Your task to perform on an android device: open app "ColorNote Notepad Notes" (install if not already installed) and enter user name: "unbridled@gmail.com" and password: "regularly" Image 0: 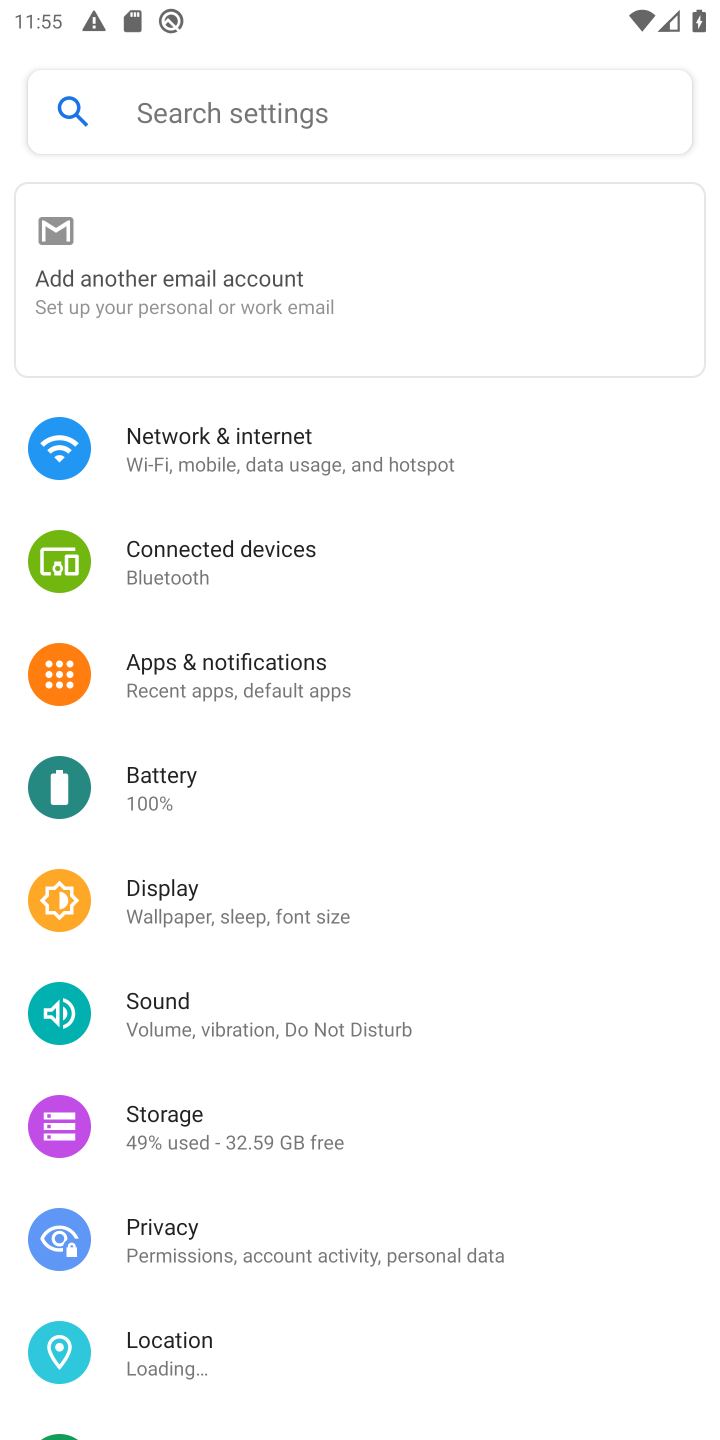
Step 0: press back button
Your task to perform on an android device: open app "ColorNote Notepad Notes" (install if not already installed) and enter user name: "unbridled@gmail.com" and password: "regularly" Image 1: 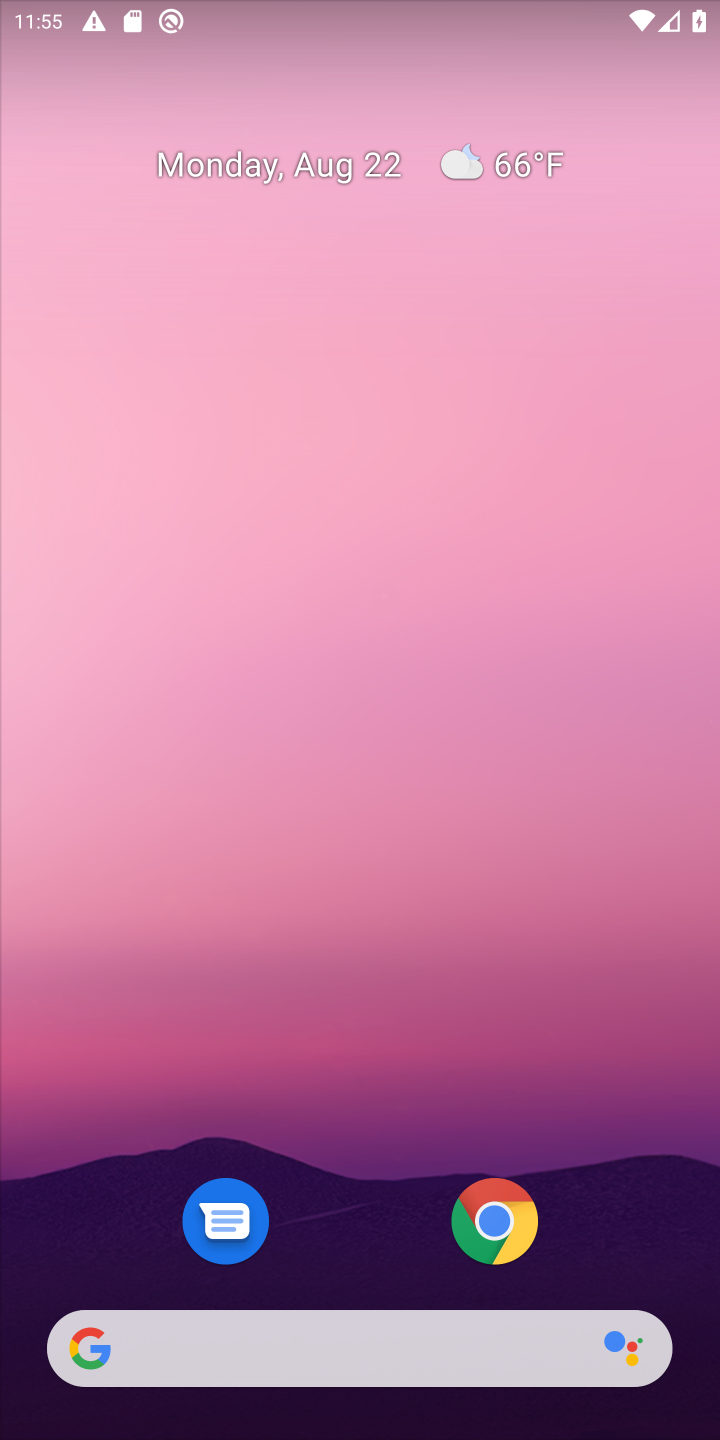
Step 1: drag from (346, 1175) to (400, 61)
Your task to perform on an android device: open app "ColorNote Notepad Notes" (install if not already installed) and enter user name: "unbridled@gmail.com" and password: "regularly" Image 2: 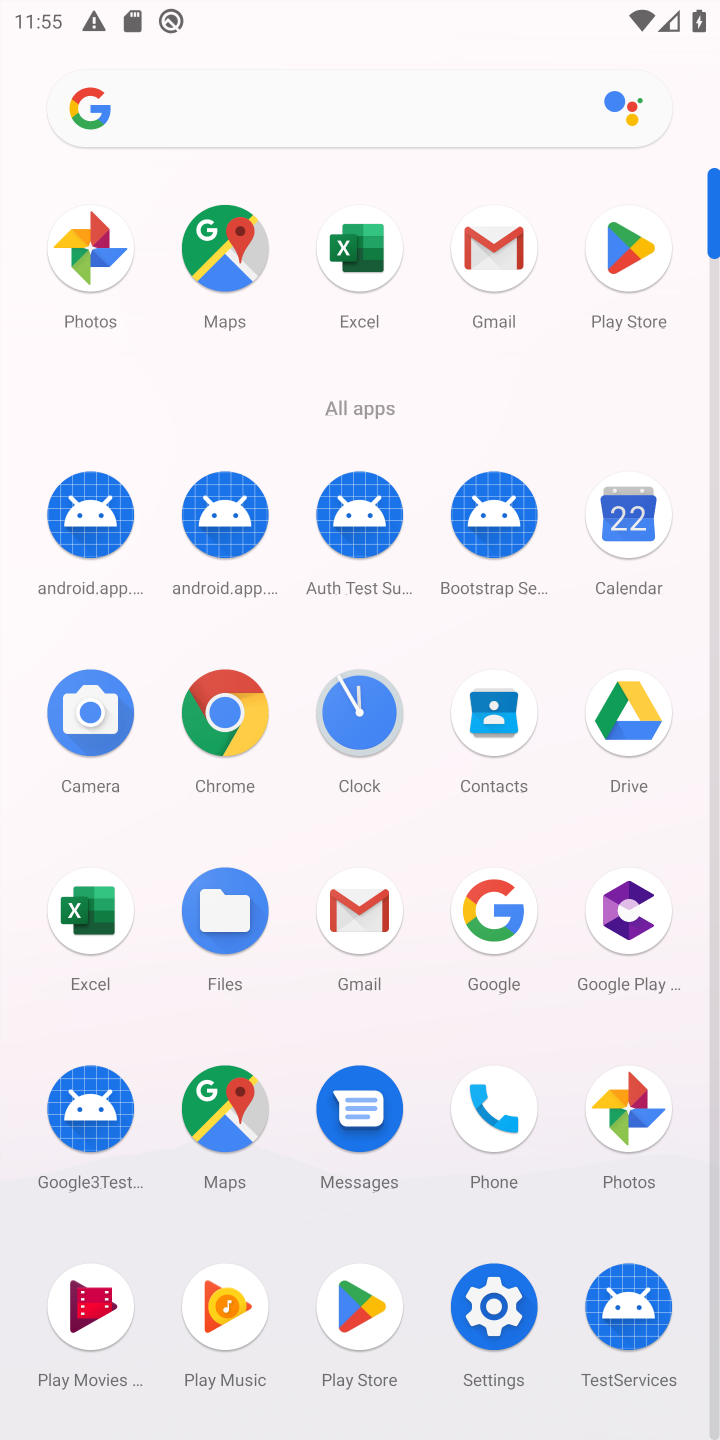
Step 2: click (628, 234)
Your task to perform on an android device: open app "ColorNote Notepad Notes" (install if not already installed) and enter user name: "unbridled@gmail.com" and password: "regularly" Image 3: 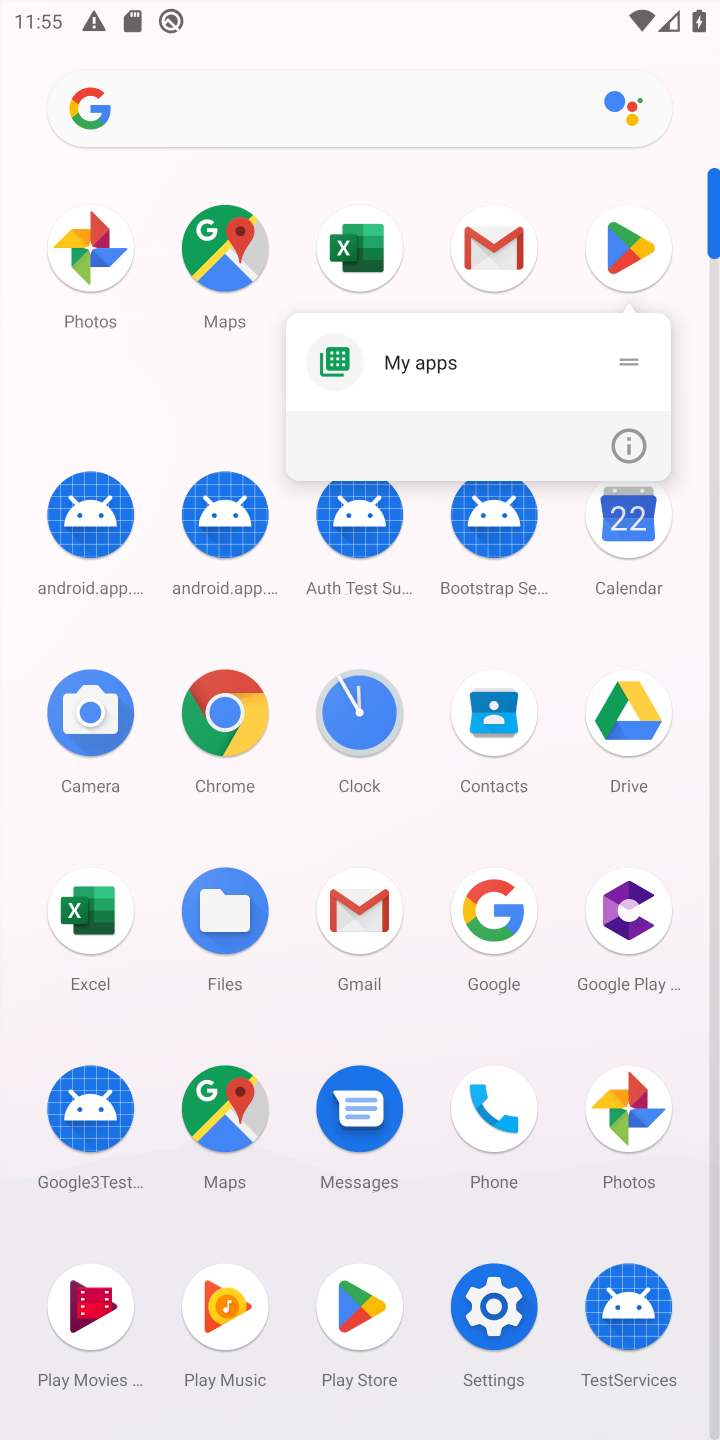
Step 3: click (633, 243)
Your task to perform on an android device: open app "ColorNote Notepad Notes" (install if not already installed) and enter user name: "unbridled@gmail.com" and password: "regularly" Image 4: 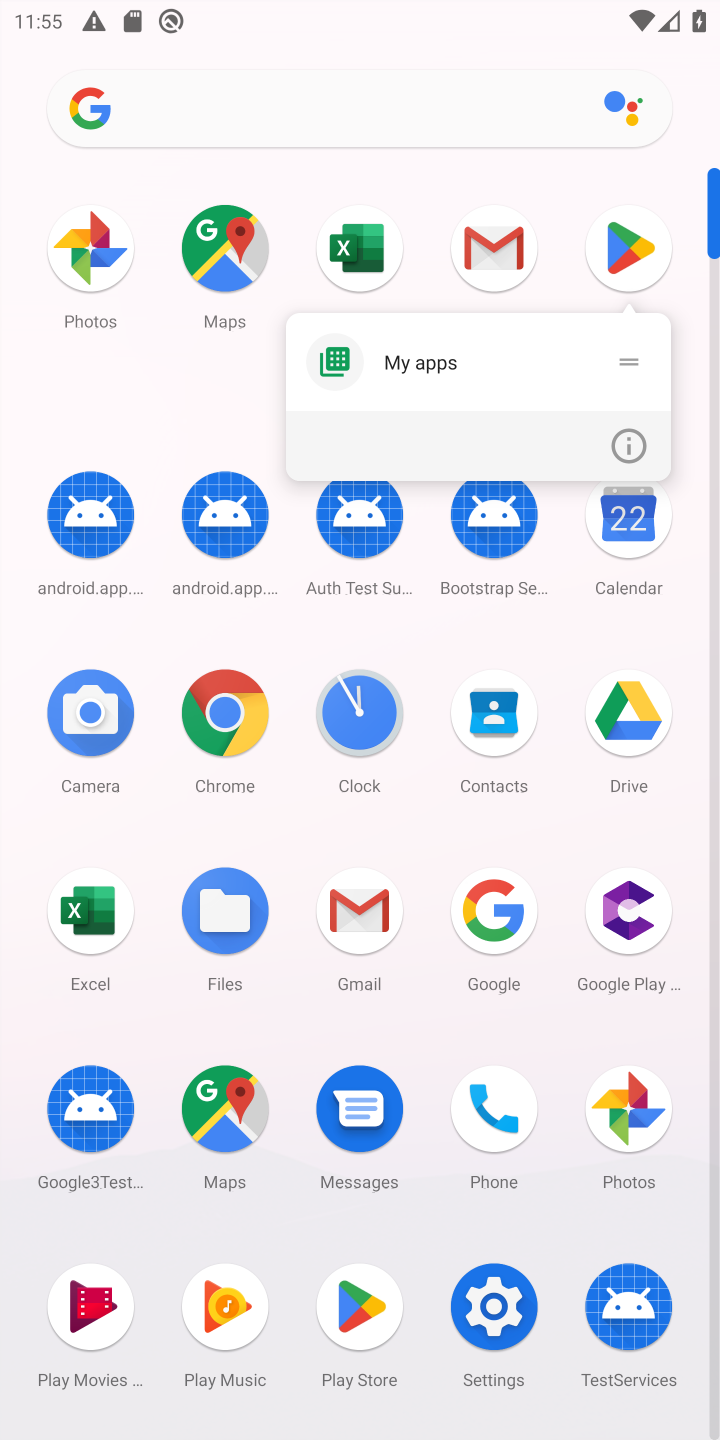
Step 4: click (633, 261)
Your task to perform on an android device: open app "ColorNote Notepad Notes" (install if not already installed) and enter user name: "unbridled@gmail.com" and password: "regularly" Image 5: 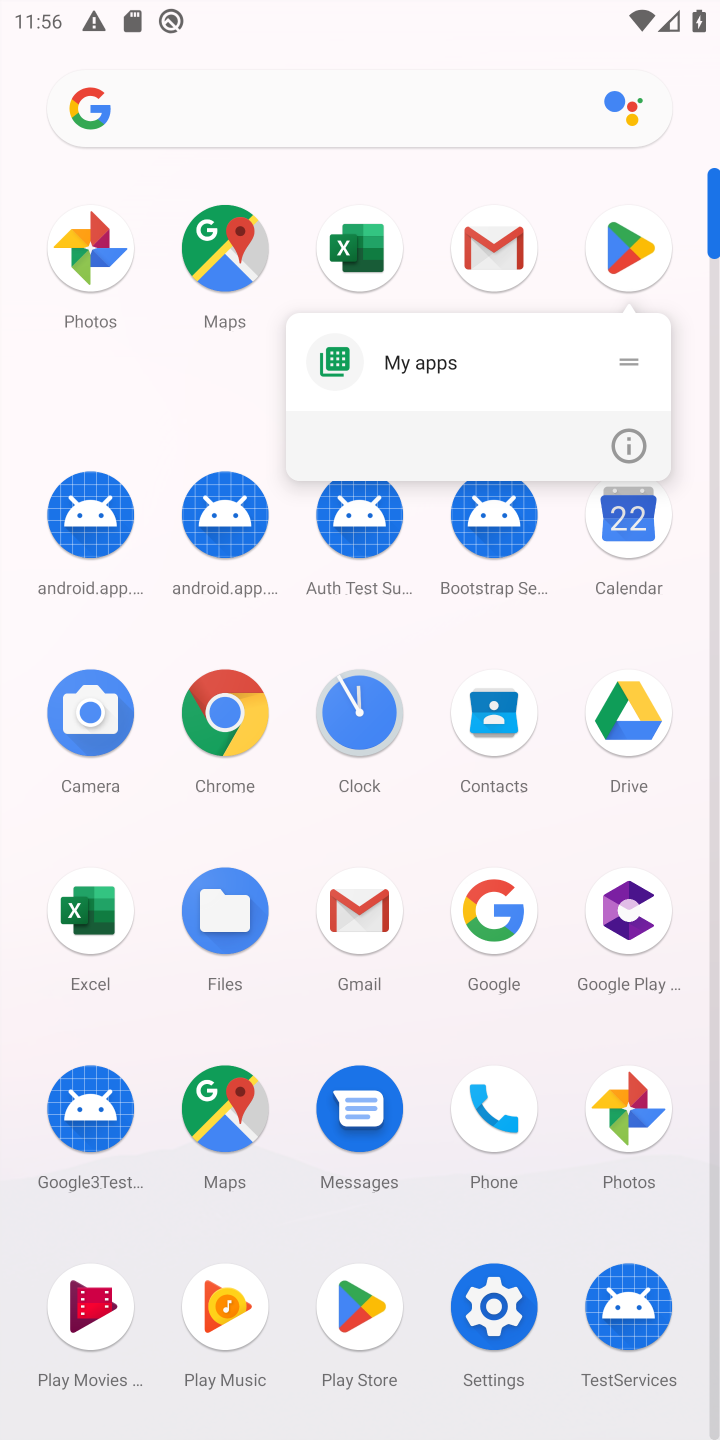
Step 5: click (631, 259)
Your task to perform on an android device: open app "ColorNote Notepad Notes" (install if not already installed) and enter user name: "unbridled@gmail.com" and password: "regularly" Image 6: 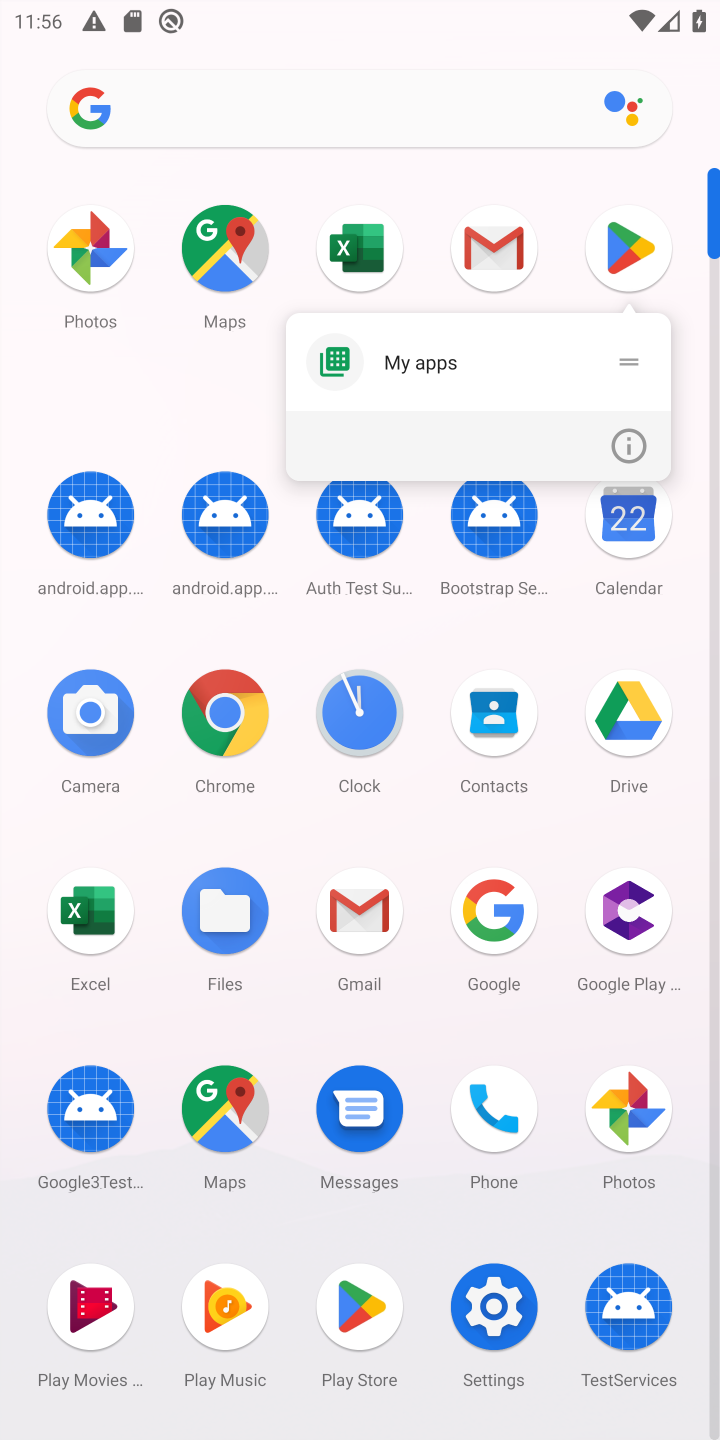
Step 6: click (633, 250)
Your task to perform on an android device: open app "ColorNote Notepad Notes" (install if not already installed) and enter user name: "unbridled@gmail.com" and password: "regularly" Image 7: 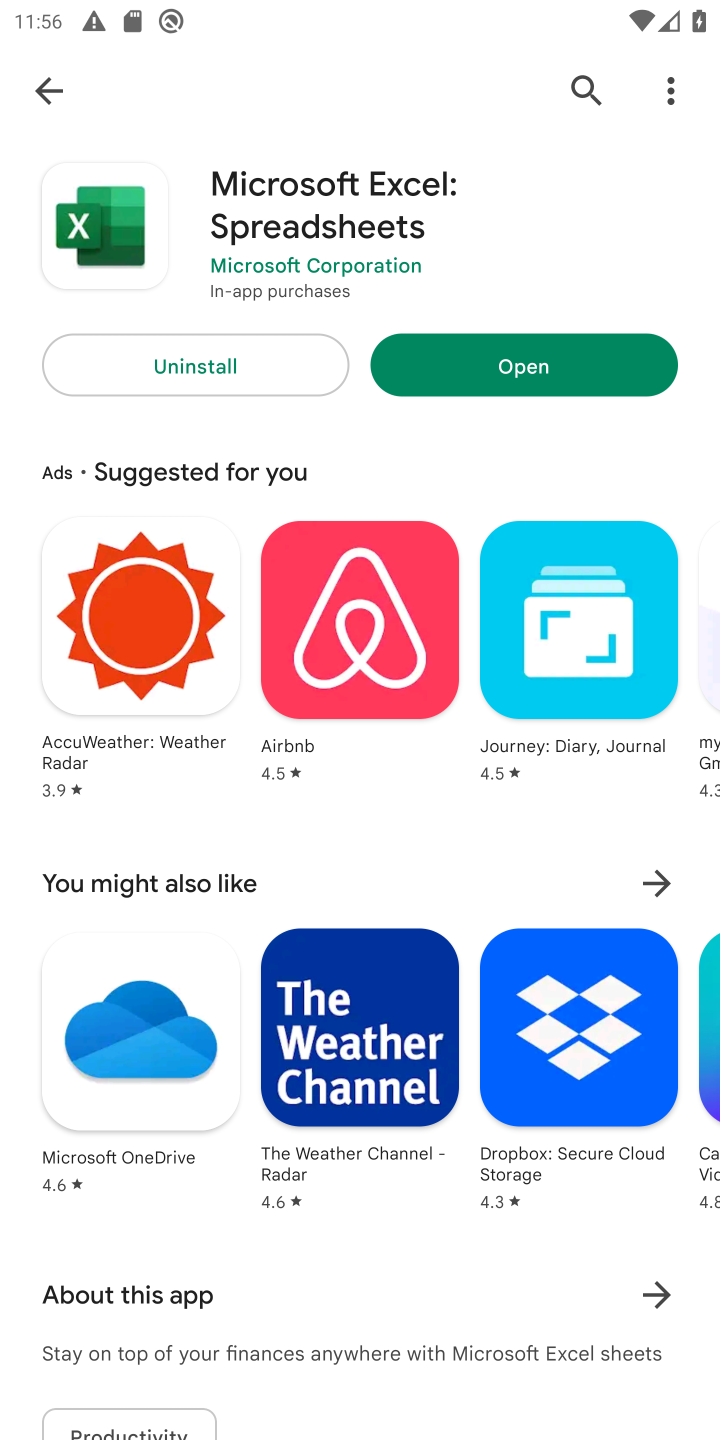
Step 7: click (585, 91)
Your task to perform on an android device: open app "ColorNote Notepad Notes" (install if not already installed) and enter user name: "unbridled@gmail.com" and password: "regularly" Image 8: 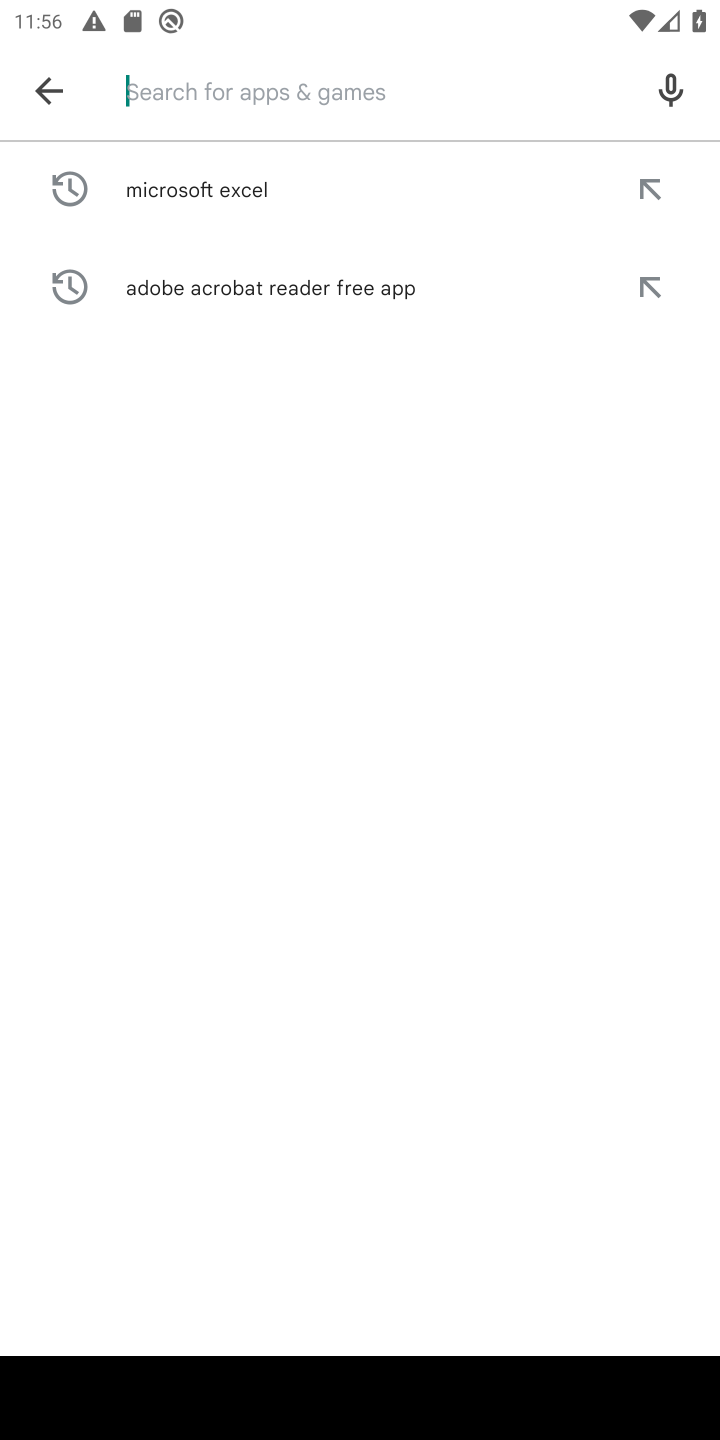
Step 8: click (211, 103)
Your task to perform on an android device: open app "ColorNote Notepad Notes" (install if not already installed) and enter user name: "unbridled@gmail.com" and password: "regularly" Image 9: 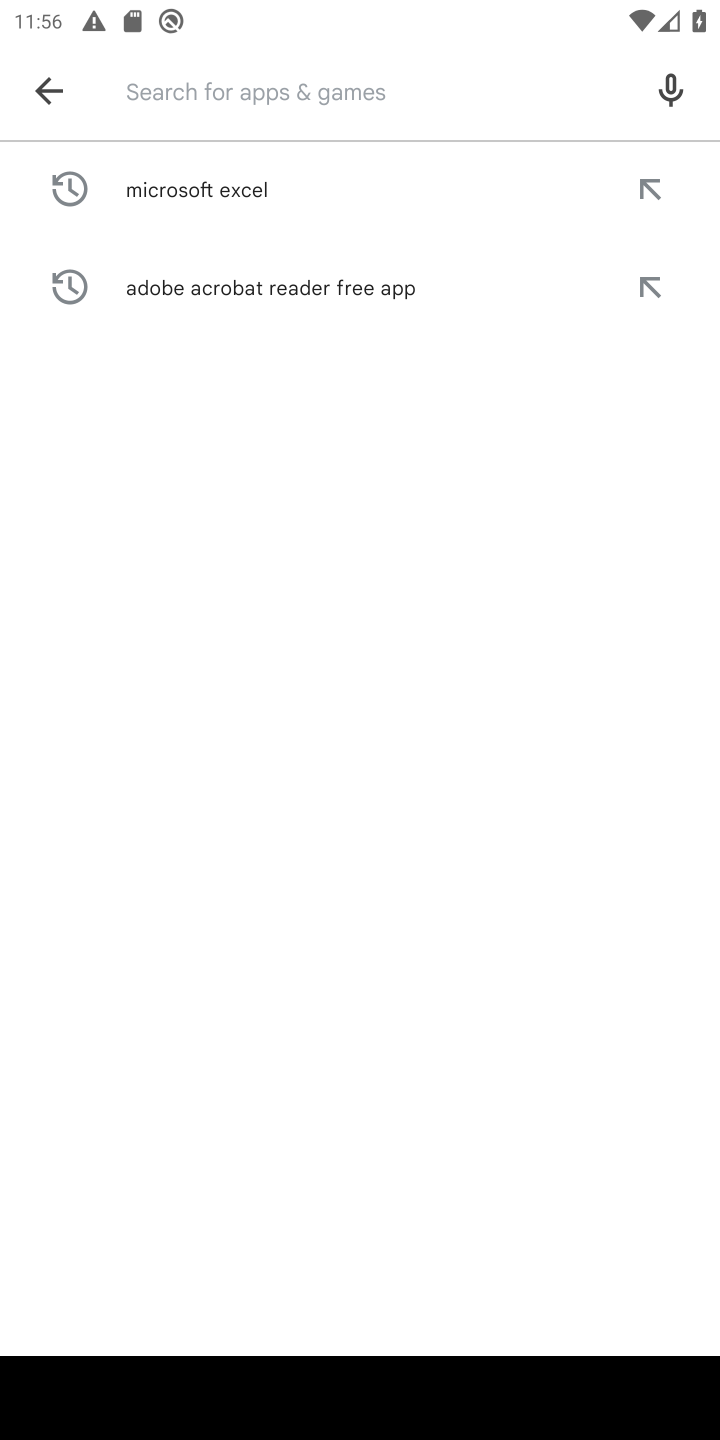
Step 9: type "ColorNote Notepad Notes"
Your task to perform on an android device: open app "ColorNote Notepad Notes" (install if not already installed) and enter user name: "unbridled@gmail.com" and password: "regularly" Image 10: 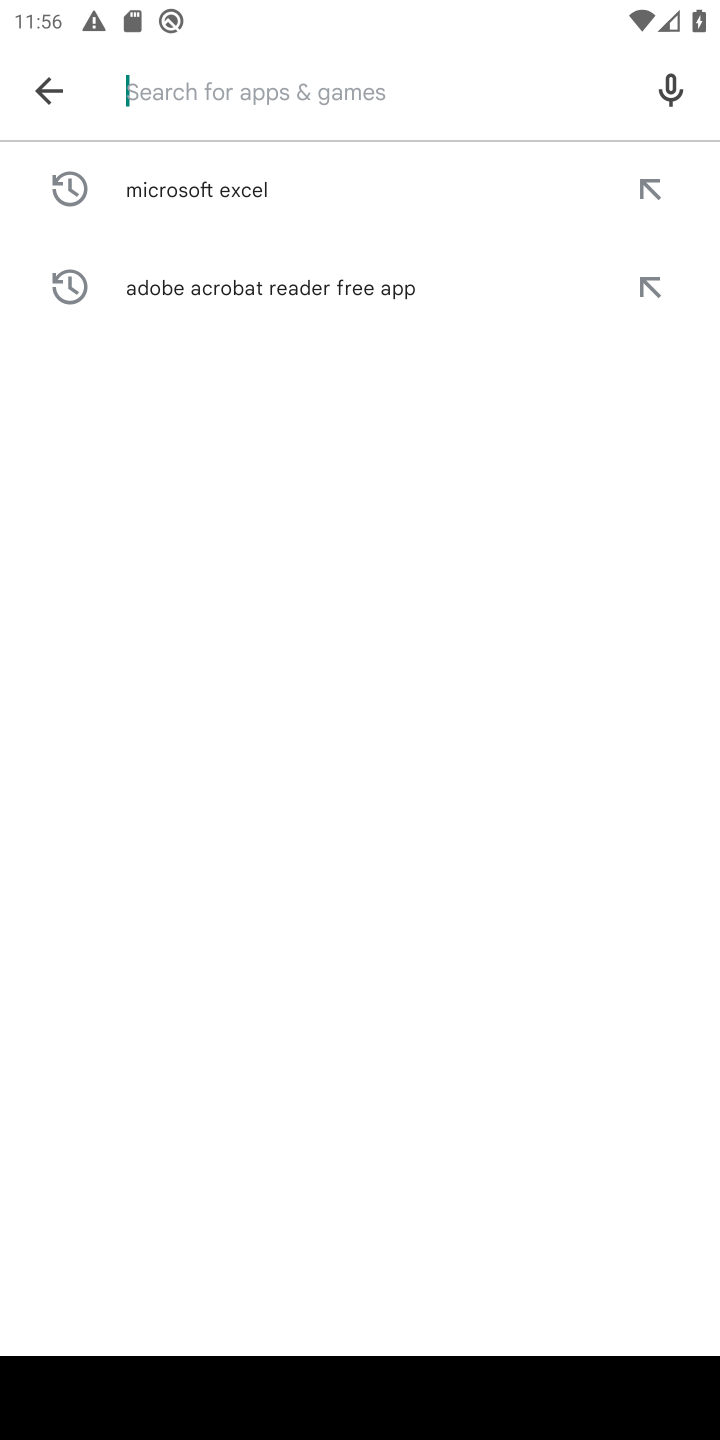
Step 10: click (517, 899)
Your task to perform on an android device: open app "ColorNote Notepad Notes" (install if not already installed) and enter user name: "unbridled@gmail.com" and password: "regularly" Image 11: 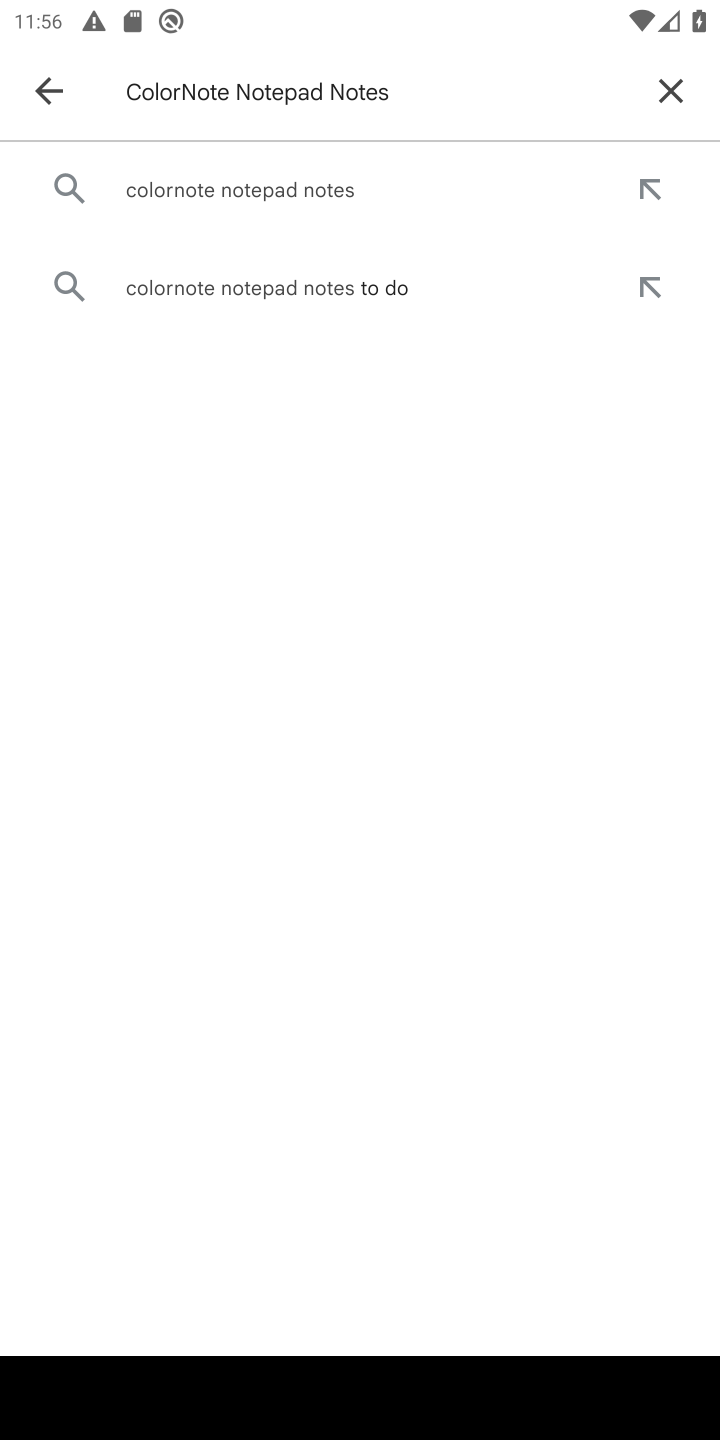
Step 11: click (367, 187)
Your task to perform on an android device: open app "ColorNote Notepad Notes" (install if not already installed) and enter user name: "unbridled@gmail.com" and password: "regularly" Image 12: 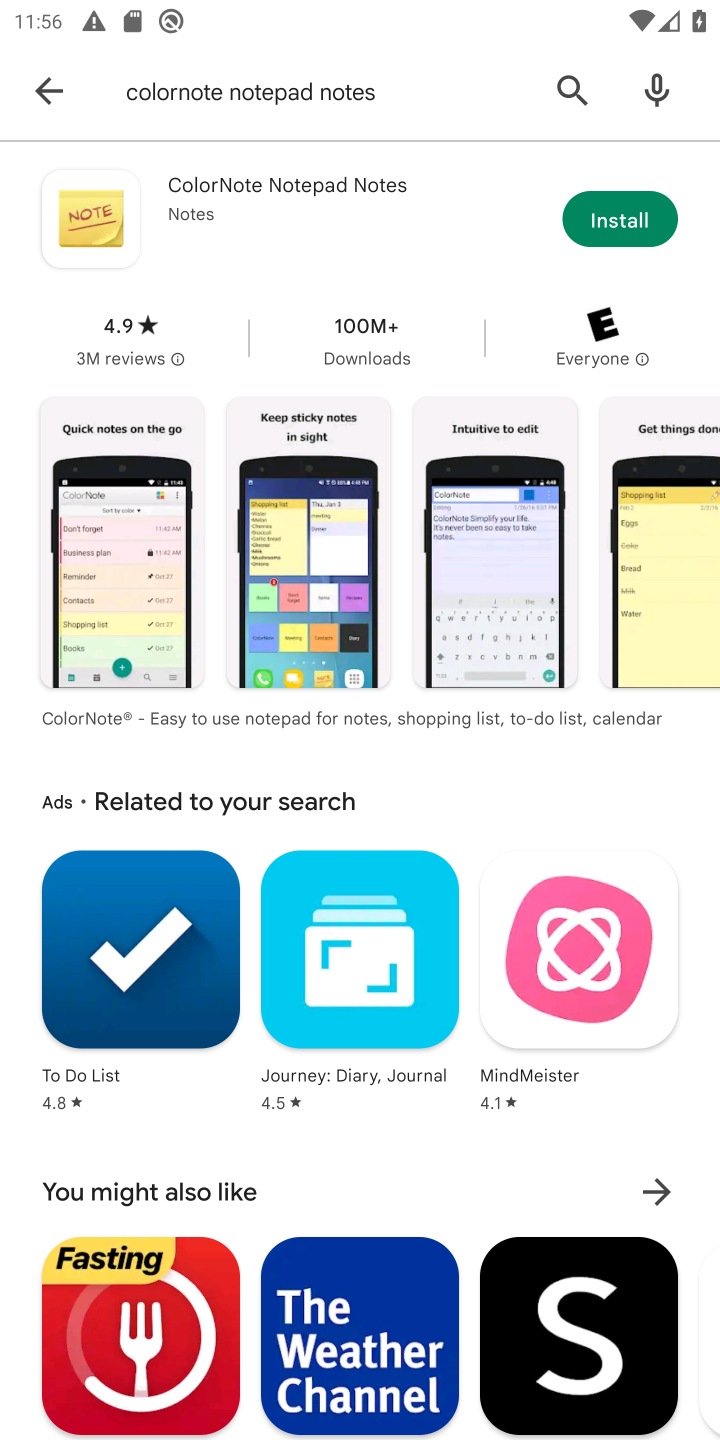
Step 12: click (616, 227)
Your task to perform on an android device: open app "ColorNote Notepad Notes" (install if not already installed) and enter user name: "unbridled@gmail.com" and password: "regularly" Image 13: 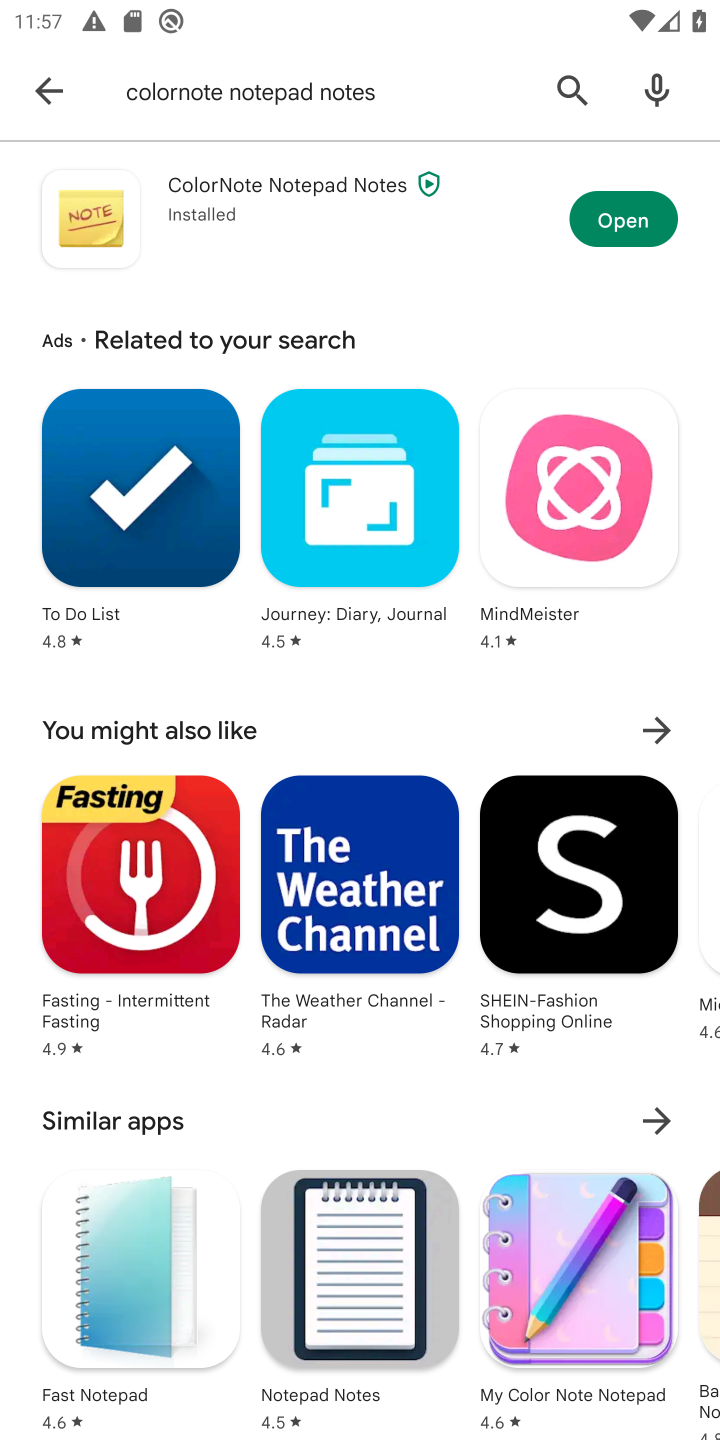
Step 13: click (630, 223)
Your task to perform on an android device: open app "ColorNote Notepad Notes" (install if not already installed) and enter user name: "unbridled@gmail.com" and password: "regularly" Image 14: 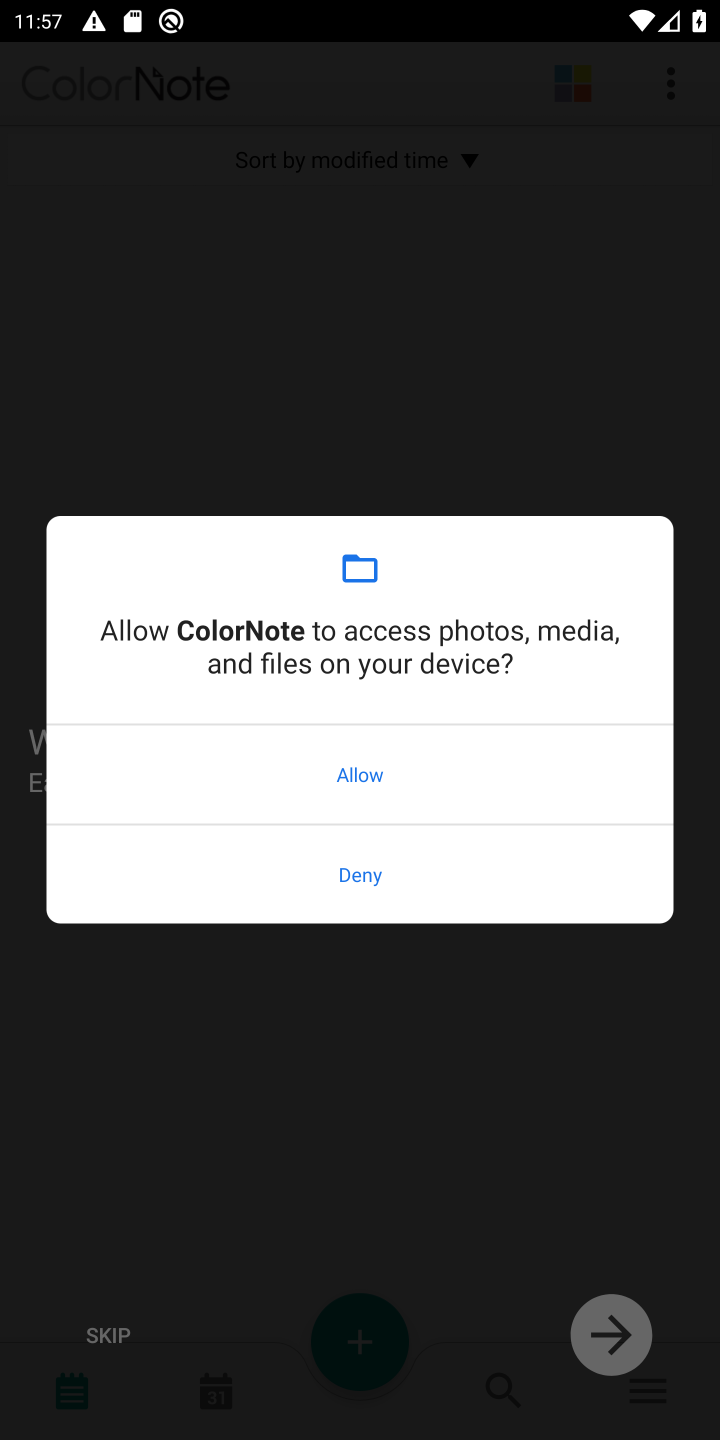
Step 14: click (462, 778)
Your task to perform on an android device: open app "ColorNote Notepad Notes" (install if not already installed) and enter user name: "unbridled@gmail.com" and password: "regularly" Image 15: 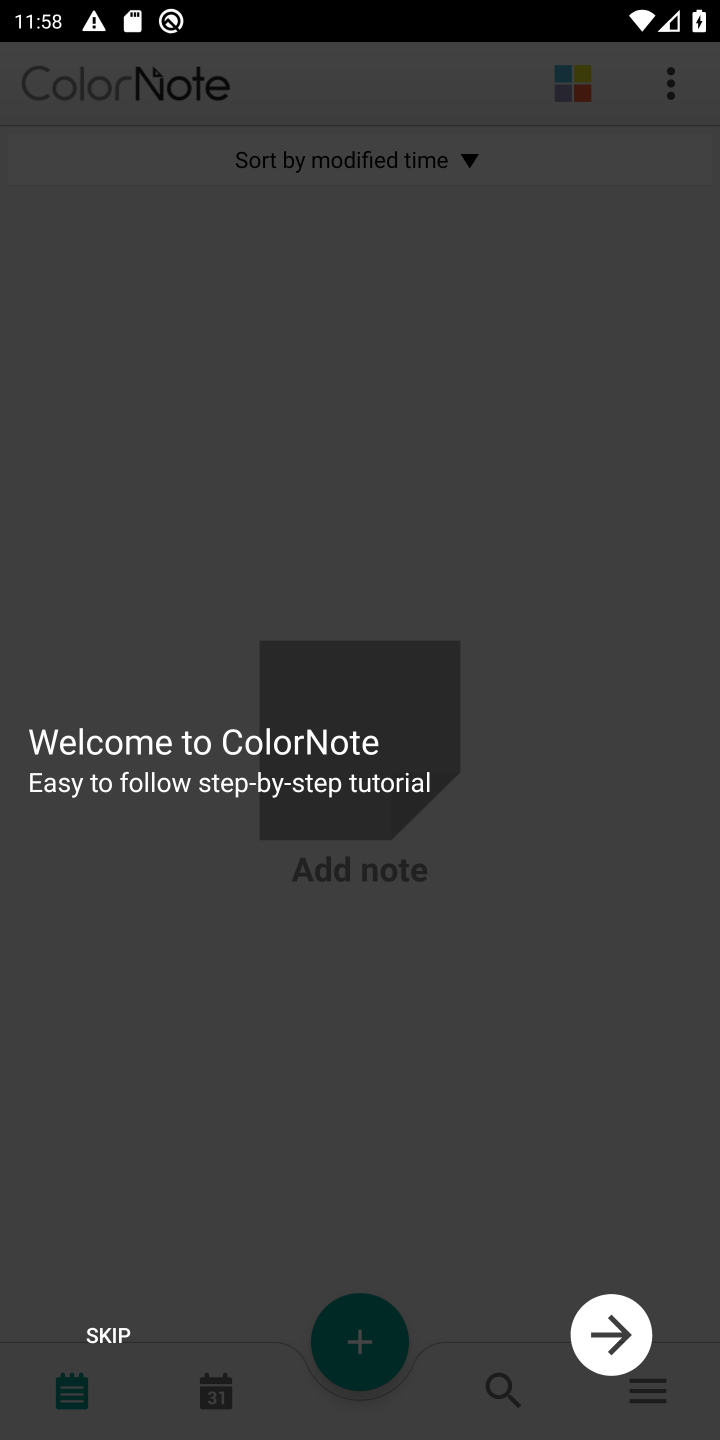
Step 15: press back button
Your task to perform on an android device: open app "ColorNote Notepad Notes" (install if not already installed) and enter user name: "unbridled@gmail.com" and password: "regularly" Image 16: 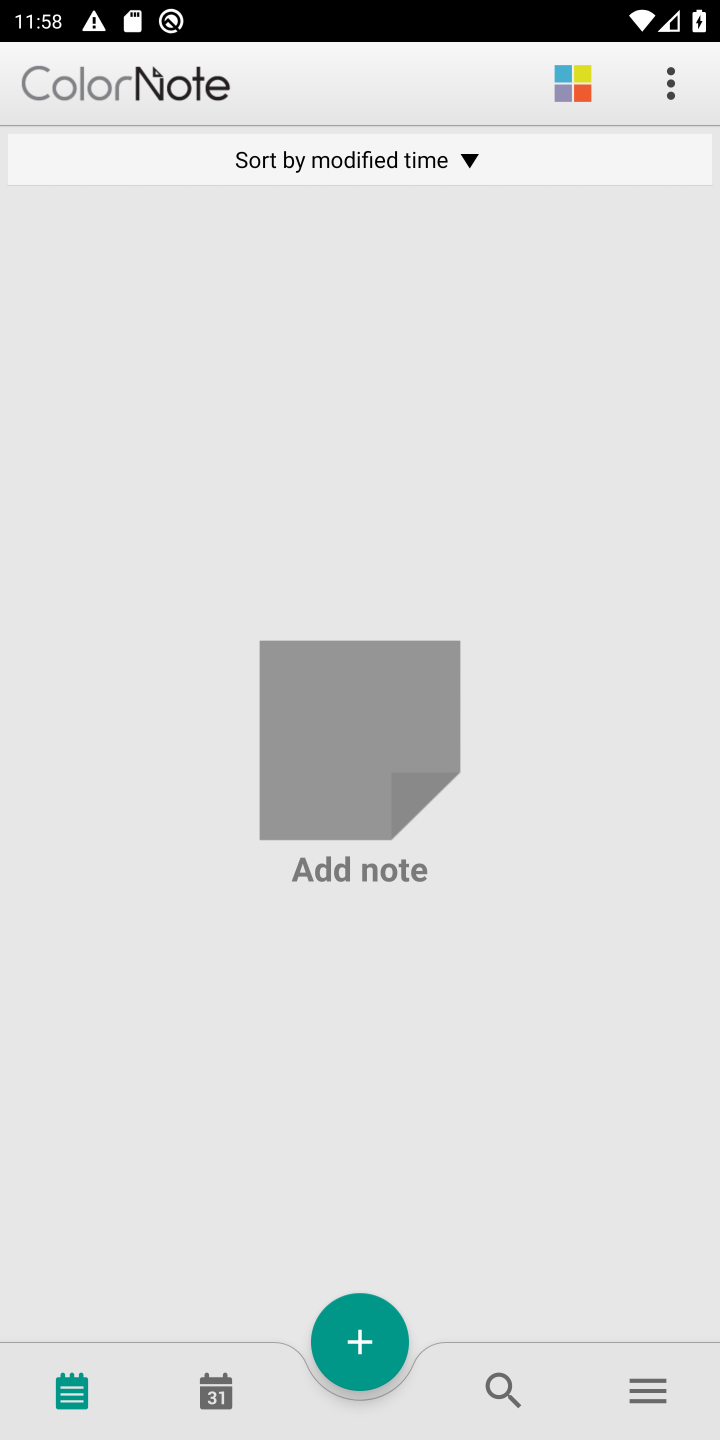
Step 16: click (565, 85)
Your task to perform on an android device: open app "ColorNote Notepad Notes" (install if not already installed) and enter user name: "unbridled@gmail.com" and password: "regularly" Image 17: 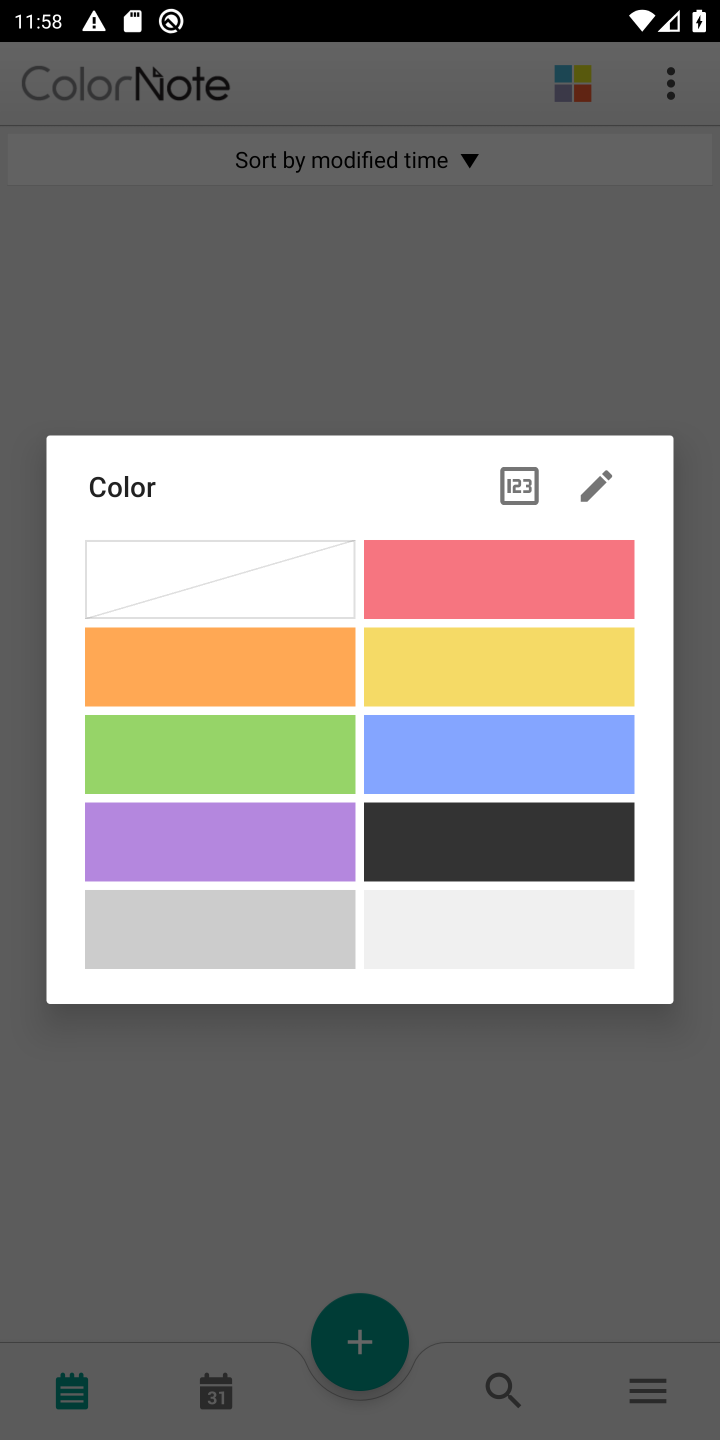
Step 17: click (313, 277)
Your task to perform on an android device: open app "ColorNote Notepad Notes" (install if not already installed) and enter user name: "unbridled@gmail.com" and password: "regularly" Image 18: 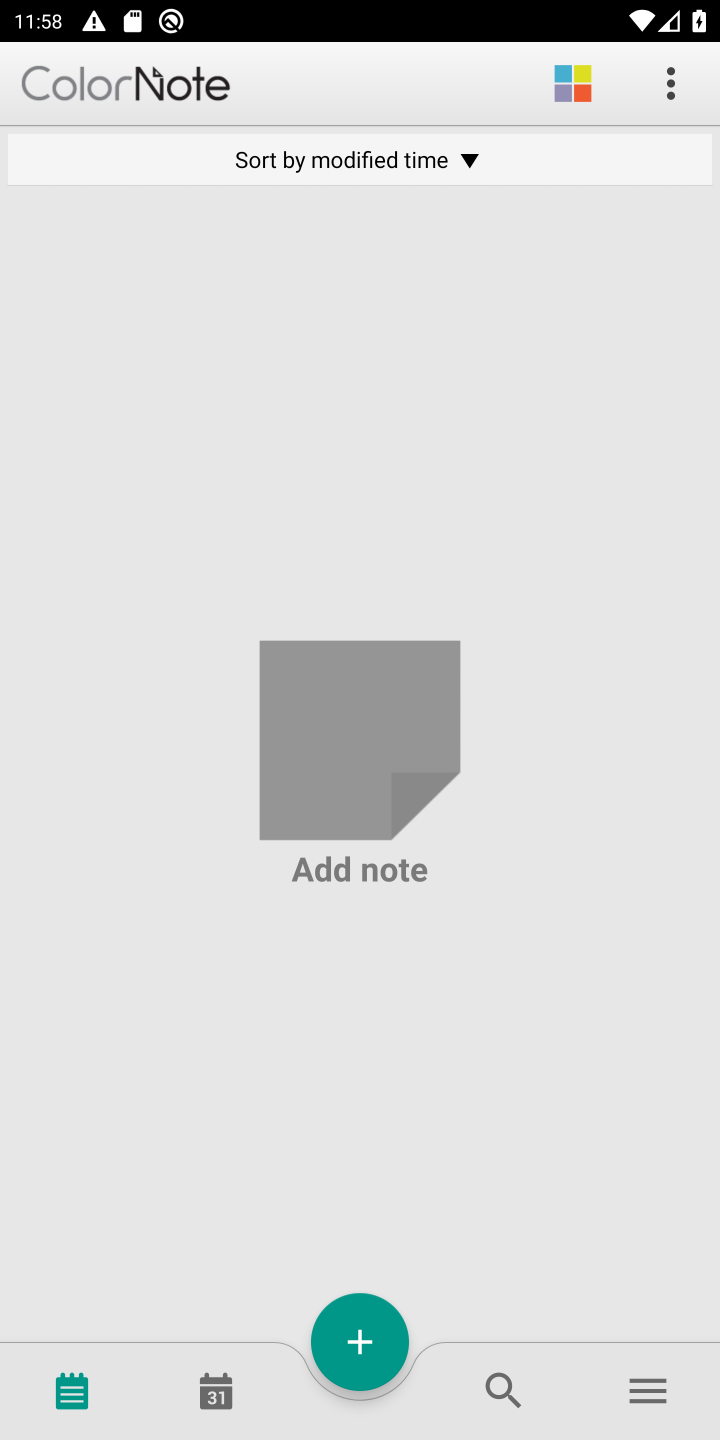
Step 18: click (663, 56)
Your task to perform on an android device: open app "ColorNote Notepad Notes" (install if not already installed) and enter user name: "unbridled@gmail.com" and password: "regularly" Image 19: 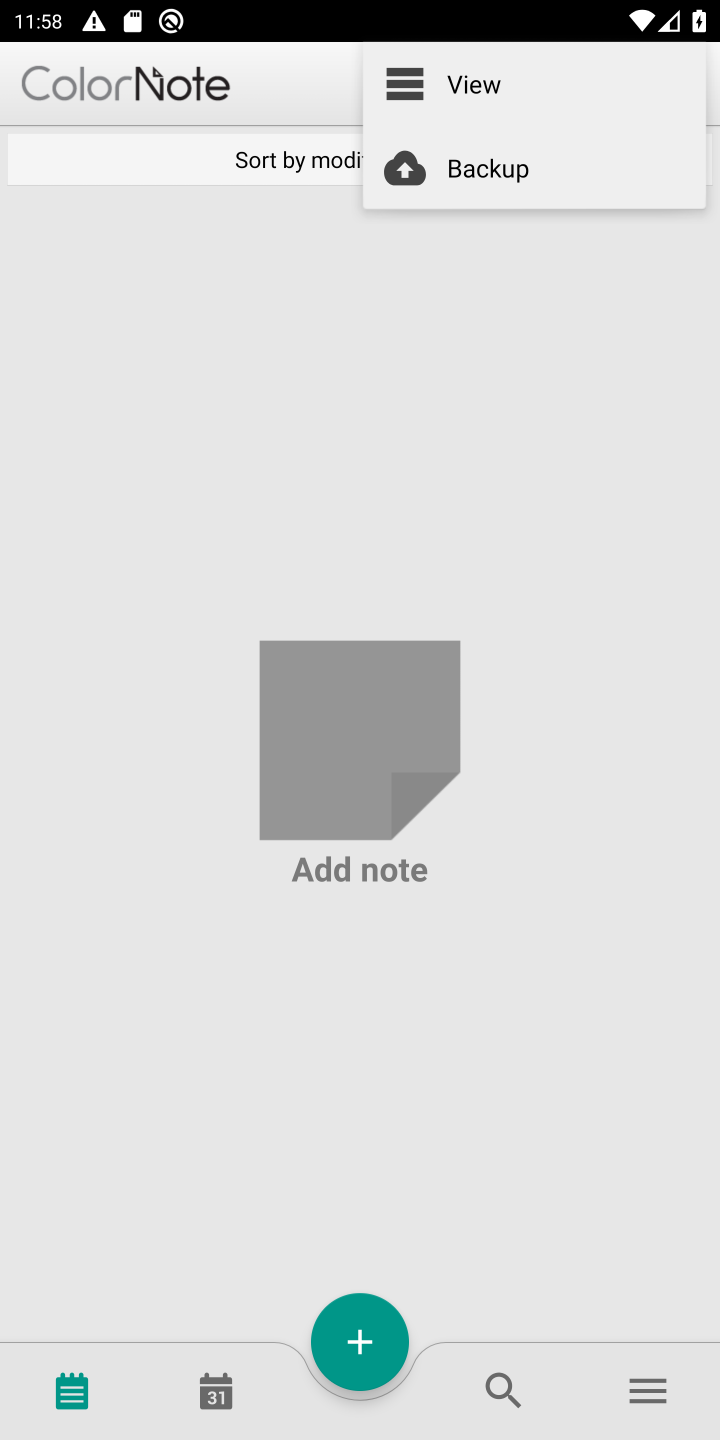
Step 19: click (629, 372)
Your task to perform on an android device: open app "ColorNote Notepad Notes" (install if not already installed) and enter user name: "unbridled@gmail.com" and password: "regularly" Image 20: 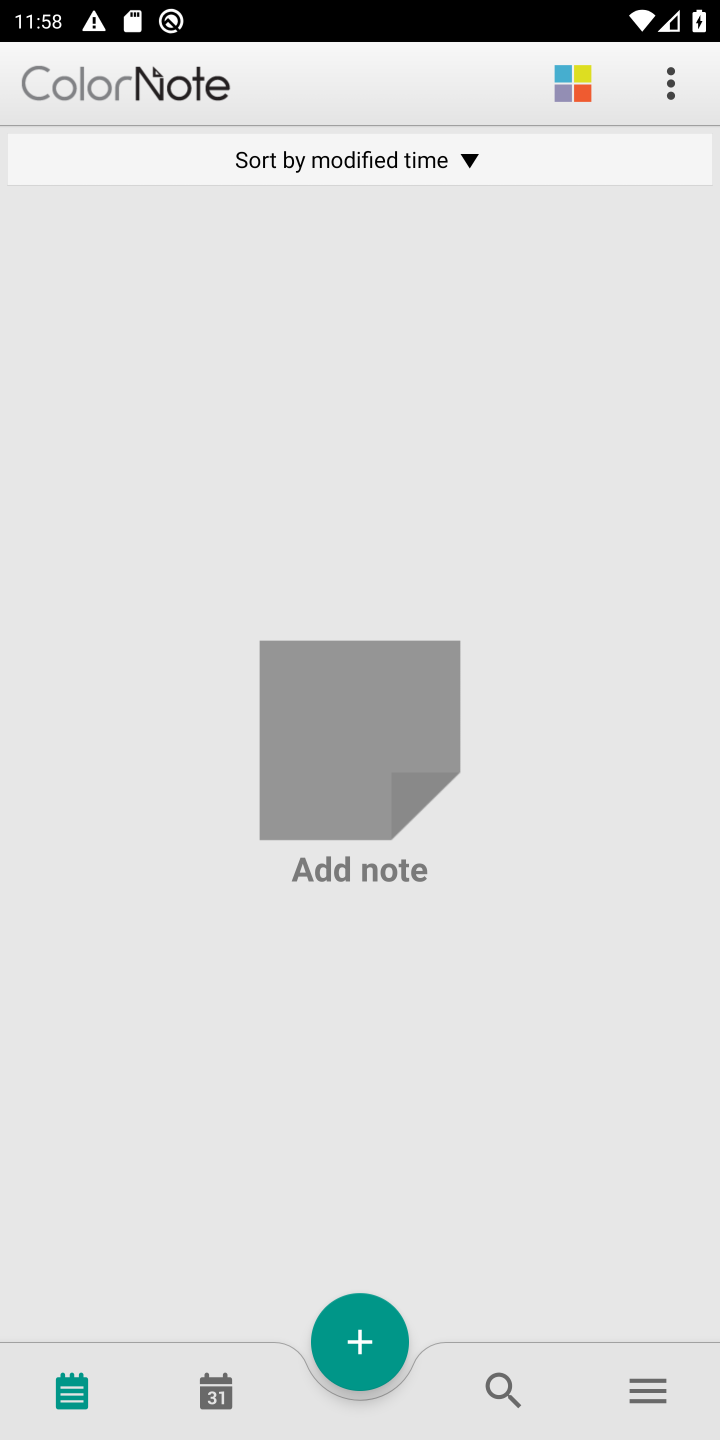
Step 20: click (648, 1403)
Your task to perform on an android device: open app "ColorNote Notepad Notes" (install if not already installed) and enter user name: "unbridled@gmail.com" and password: "regularly" Image 21: 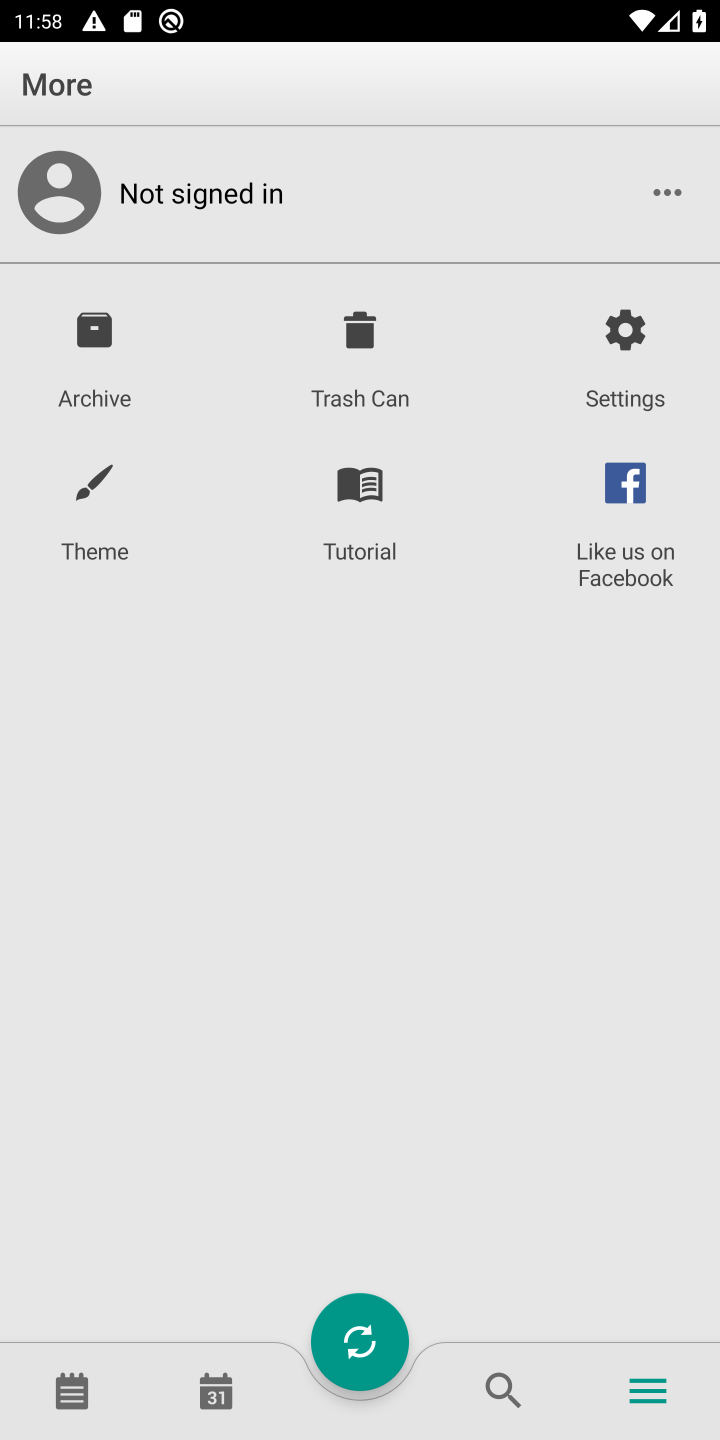
Step 21: click (172, 170)
Your task to perform on an android device: open app "ColorNote Notepad Notes" (install if not already installed) and enter user name: "unbridled@gmail.com" and password: "regularly" Image 22: 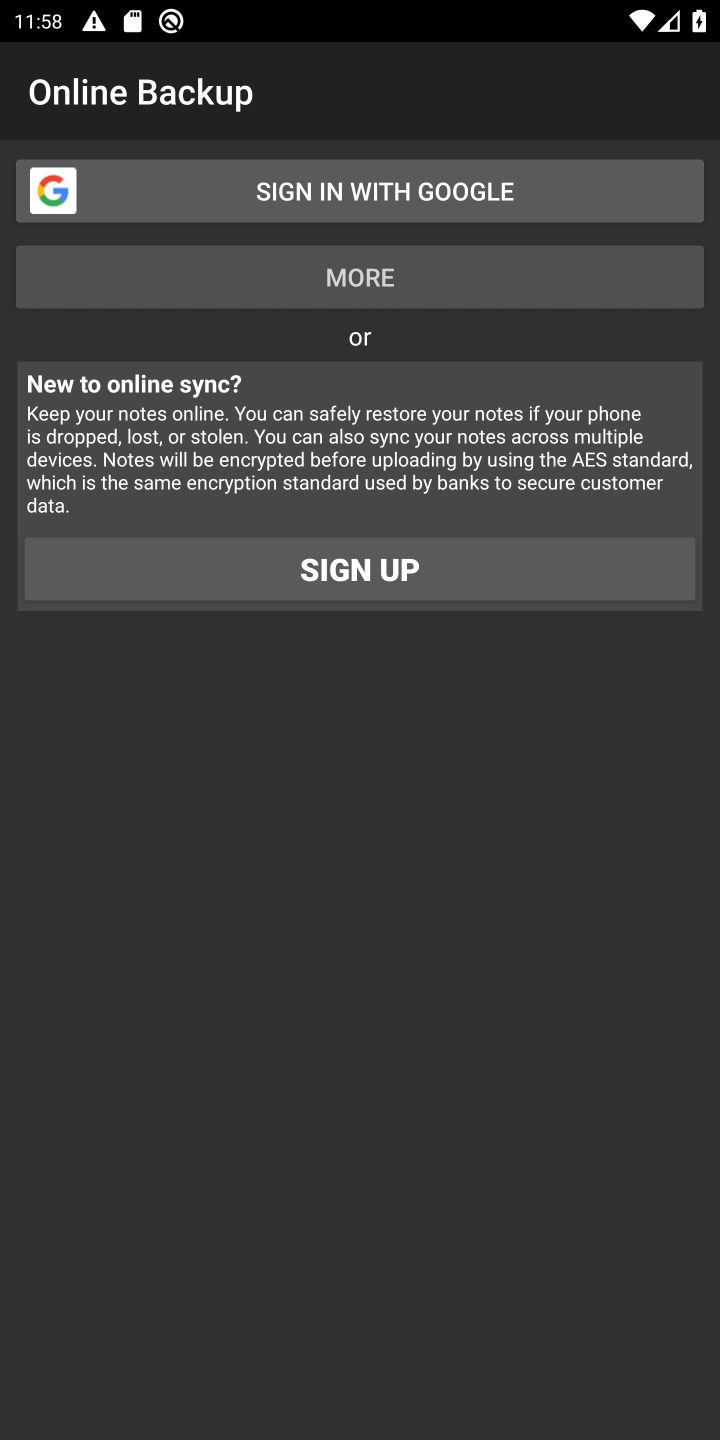
Step 22: click (382, 574)
Your task to perform on an android device: open app "ColorNote Notepad Notes" (install if not already installed) and enter user name: "unbridled@gmail.com" and password: "regularly" Image 23: 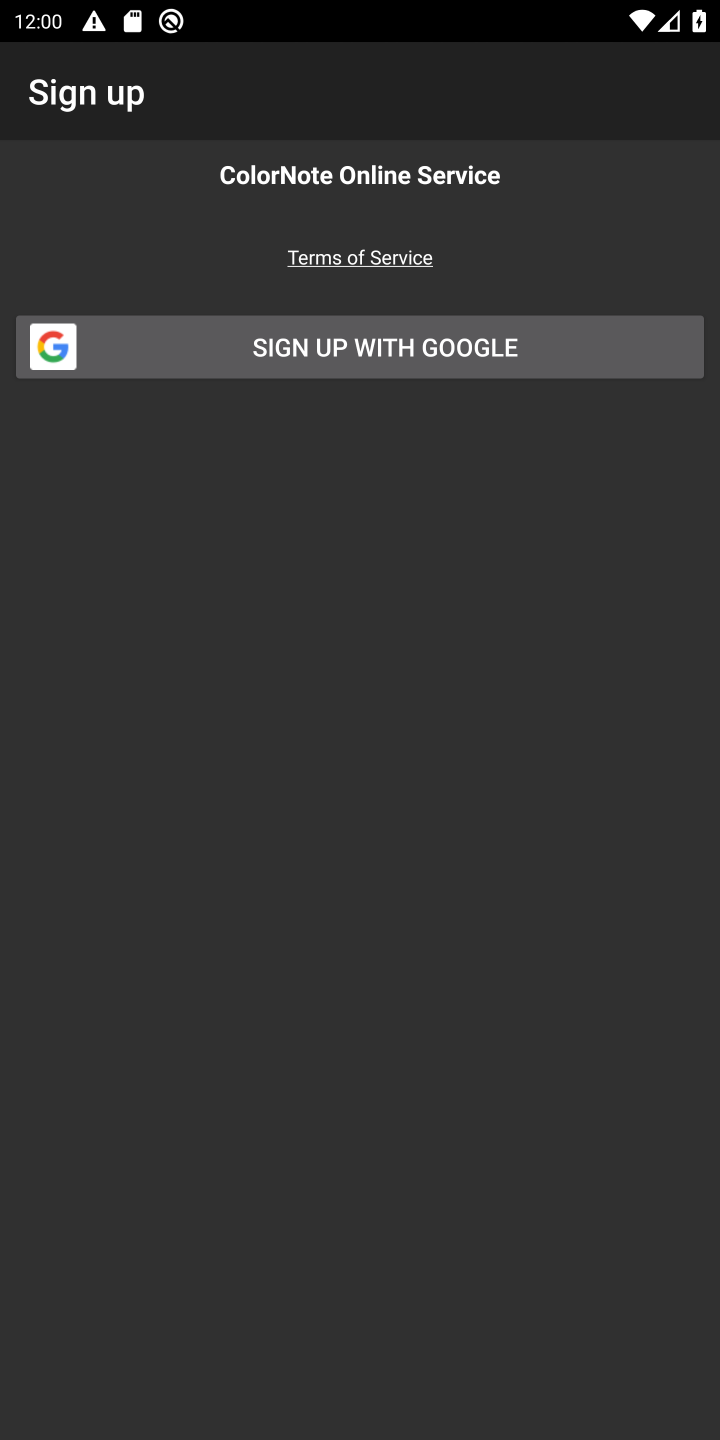
Step 23: click (394, 347)
Your task to perform on an android device: open app "ColorNote Notepad Notes" (install if not already installed) and enter user name: "unbridled@gmail.com" and password: "regularly" Image 24: 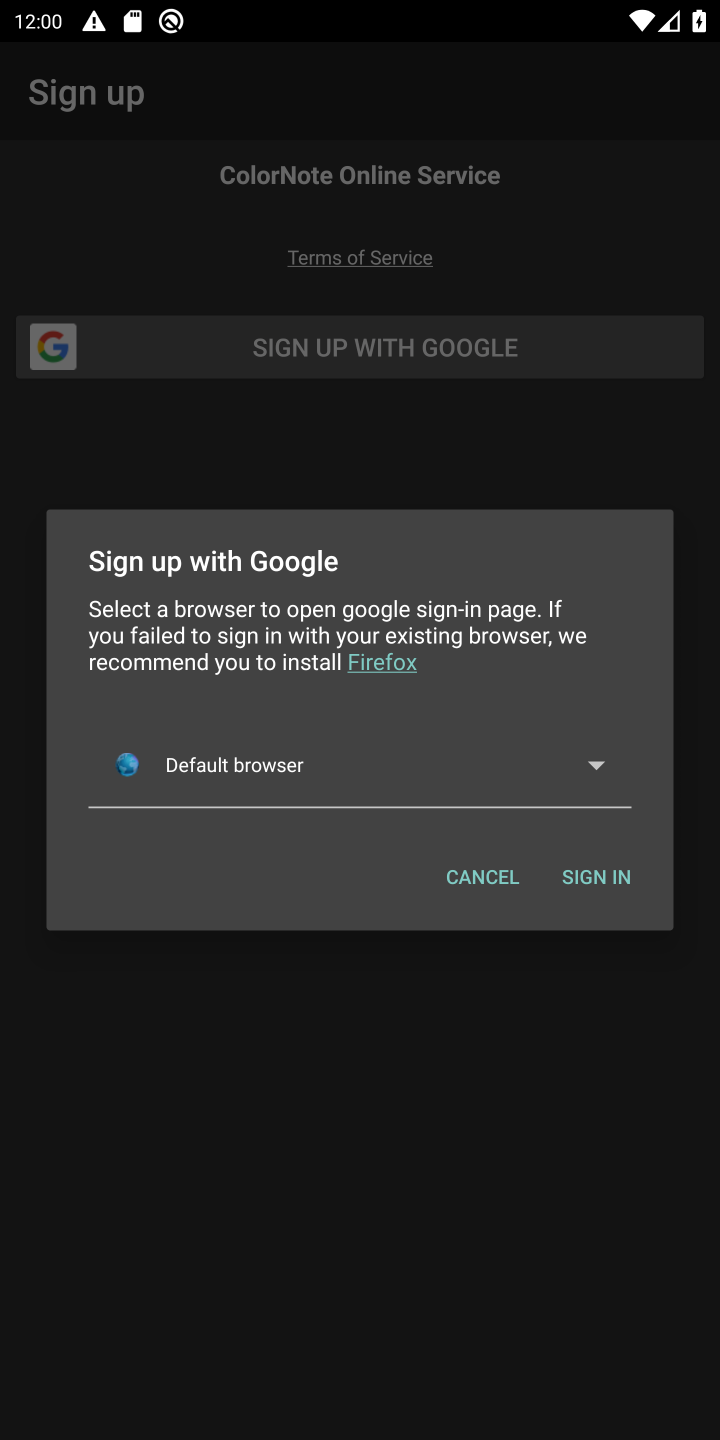
Step 24: click (486, 886)
Your task to perform on an android device: open app "ColorNote Notepad Notes" (install if not already installed) and enter user name: "unbridled@gmail.com" and password: "regularly" Image 25: 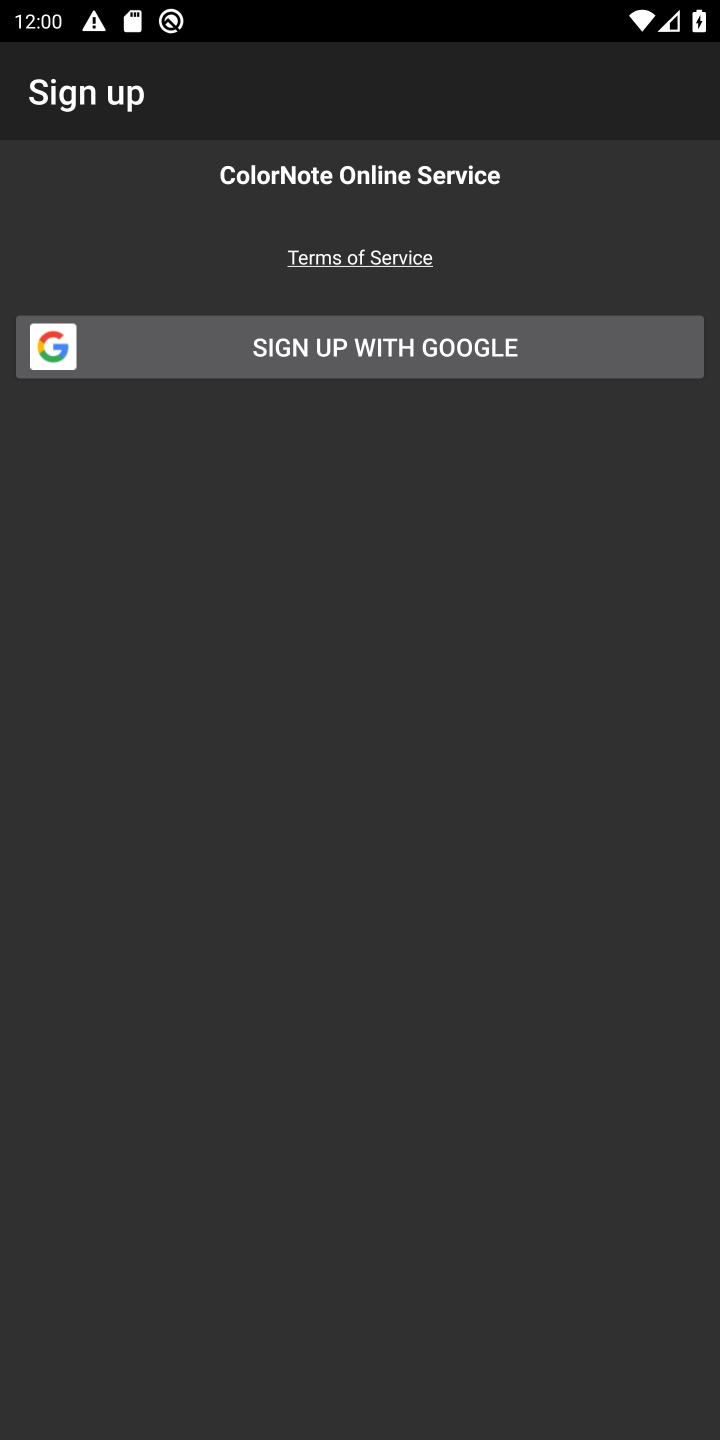
Step 25: task complete